Your task to perform on an android device: Open Wikipedia Image 0: 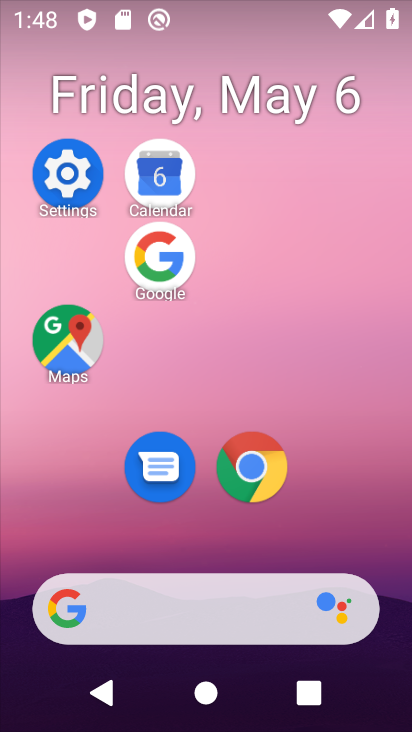
Step 0: click (270, 462)
Your task to perform on an android device: Open Wikipedia Image 1: 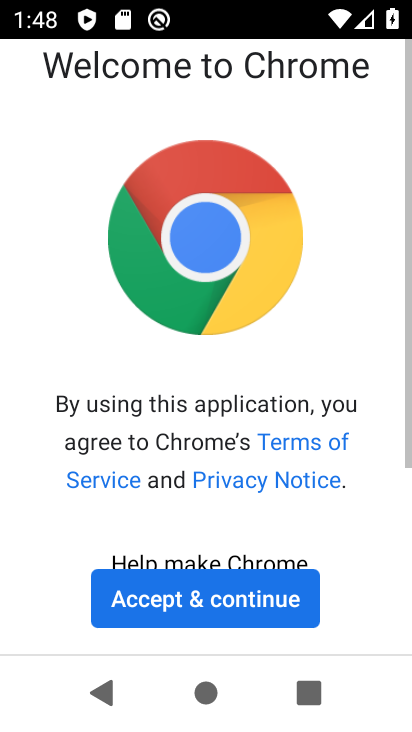
Step 1: click (304, 610)
Your task to perform on an android device: Open Wikipedia Image 2: 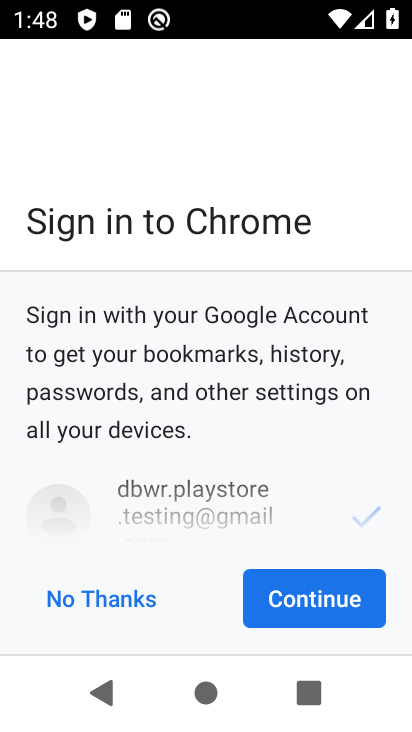
Step 2: click (297, 603)
Your task to perform on an android device: Open Wikipedia Image 3: 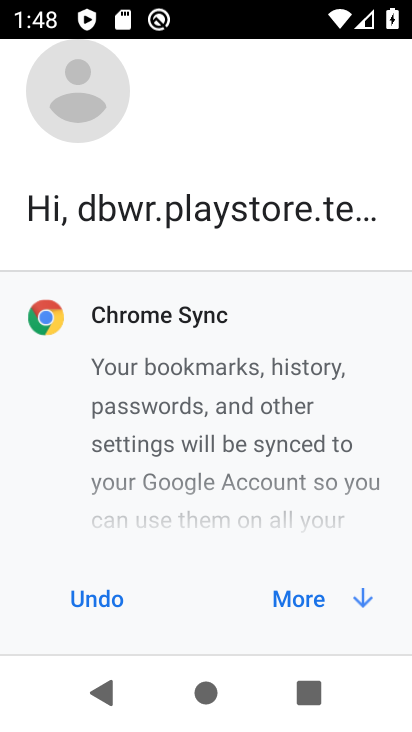
Step 3: click (297, 603)
Your task to perform on an android device: Open Wikipedia Image 4: 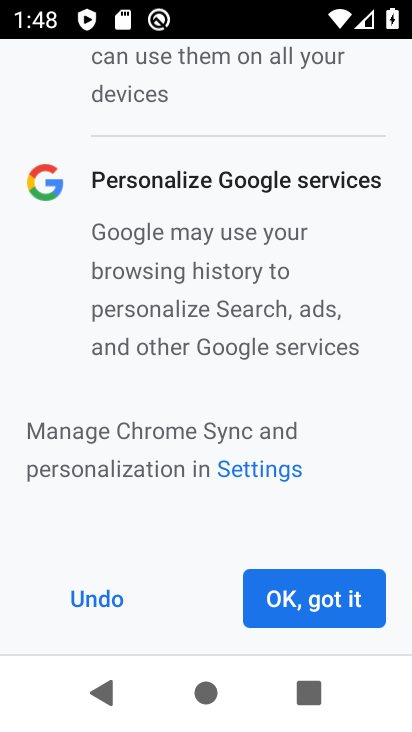
Step 4: click (297, 603)
Your task to perform on an android device: Open Wikipedia Image 5: 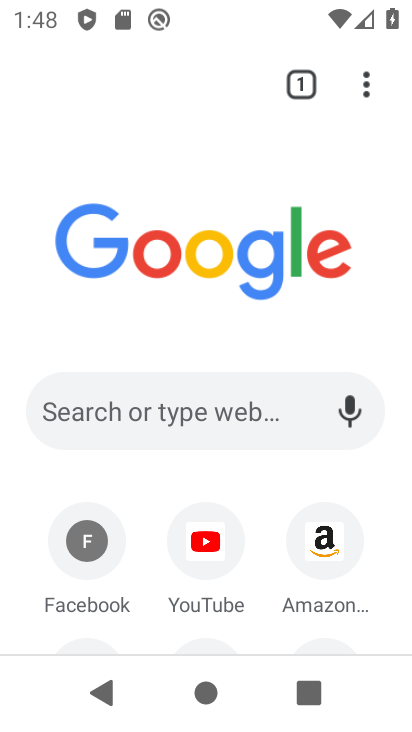
Step 5: drag from (251, 503) to (275, 298)
Your task to perform on an android device: Open Wikipedia Image 6: 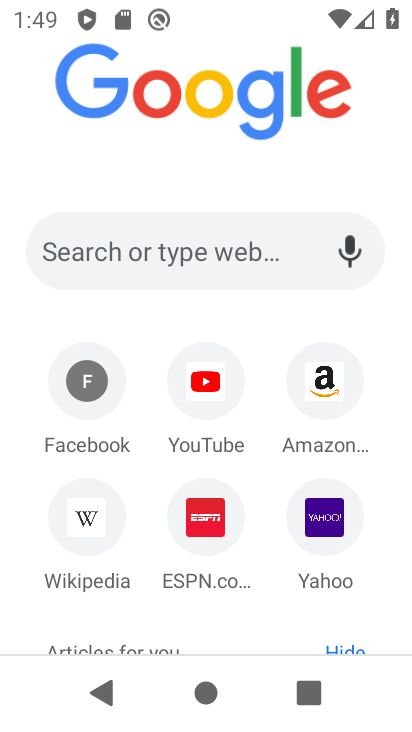
Step 6: click (102, 503)
Your task to perform on an android device: Open Wikipedia Image 7: 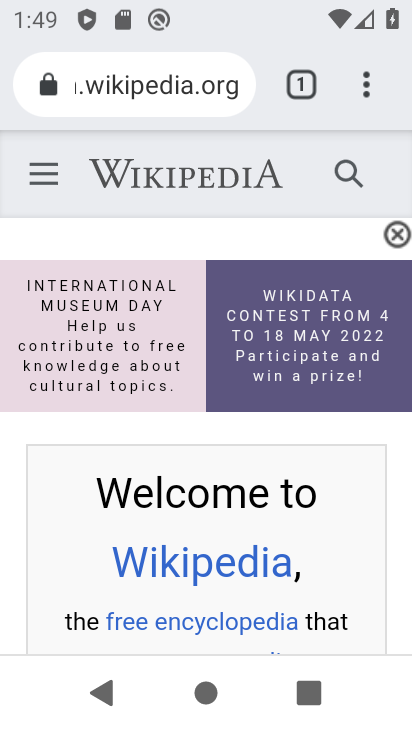
Step 7: task complete